Your task to perform on an android device: open chrome and create a bookmark for the current page Image 0: 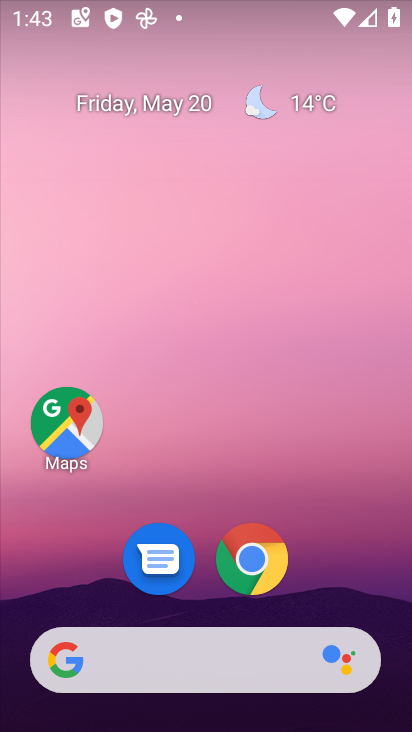
Step 0: click (242, 561)
Your task to perform on an android device: open chrome and create a bookmark for the current page Image 1: 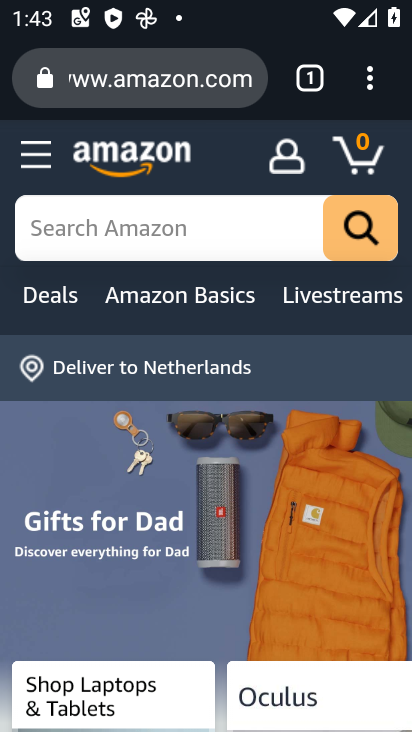
Step 1: click (357, 88)
Your task to perform on an android device: open chrome and create a bookmark for the current page Image 2: 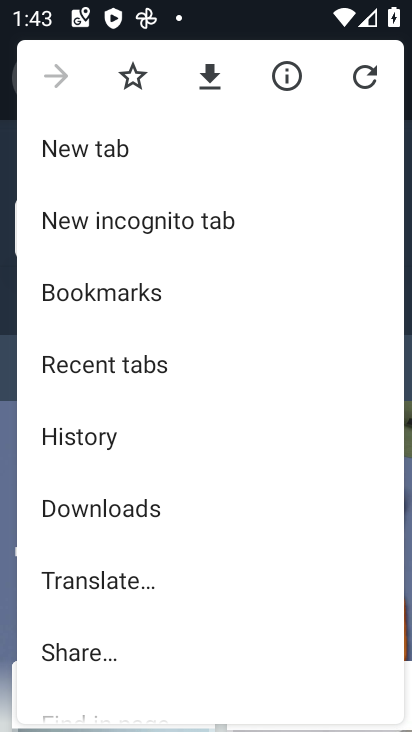
Step 2: click (130, 63)
Your task to perform on an android device: open chrome and create a bookmark for the current page Image 3: 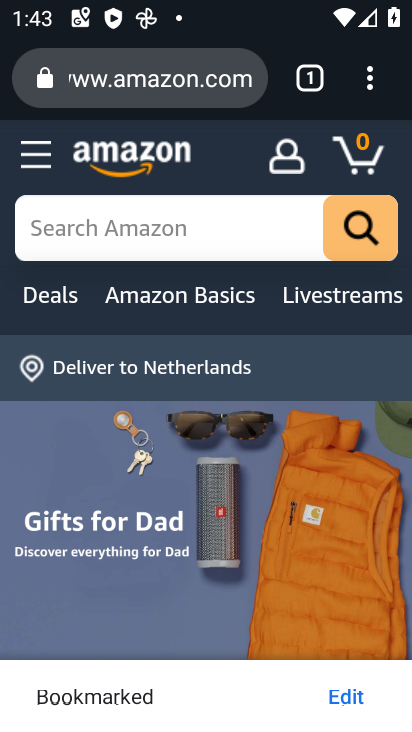
Step 3: task complete